Your task to perform on an android device: Open battery settings Image 0: 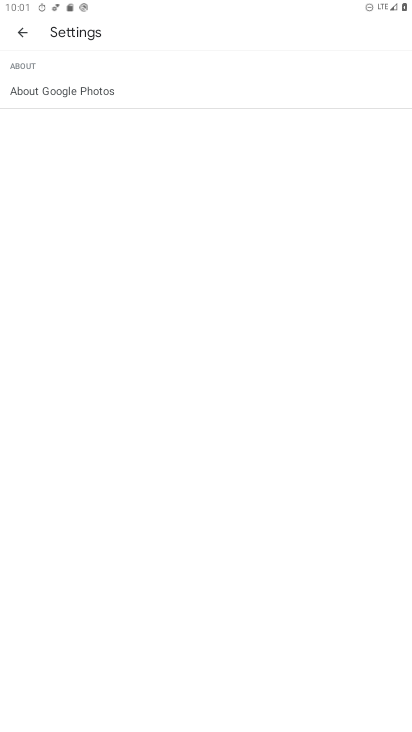
Step 0: press home button
Your task to perform on an android device: Open battery settings Image 1: 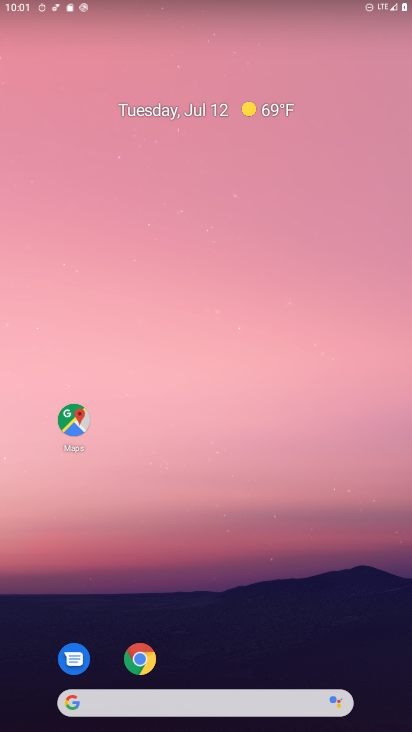
Step 1: drag from (240, 702) to (230, 178)
Your task to perform on an android device: Open battery settings Image 2: 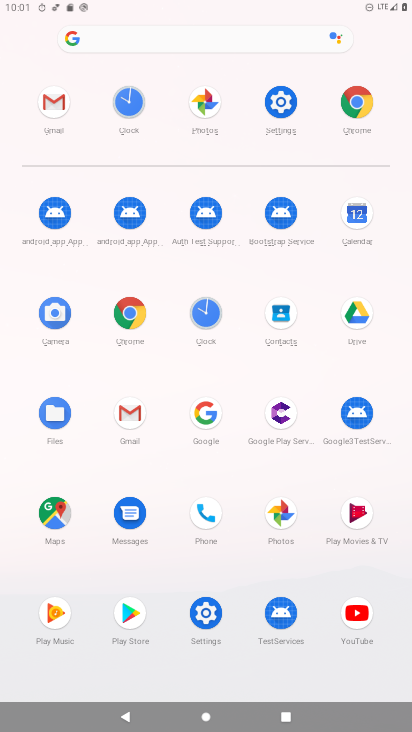
Step 2: click (277, 105)
Your task to perform on an android device: Open battery settings Image 3: 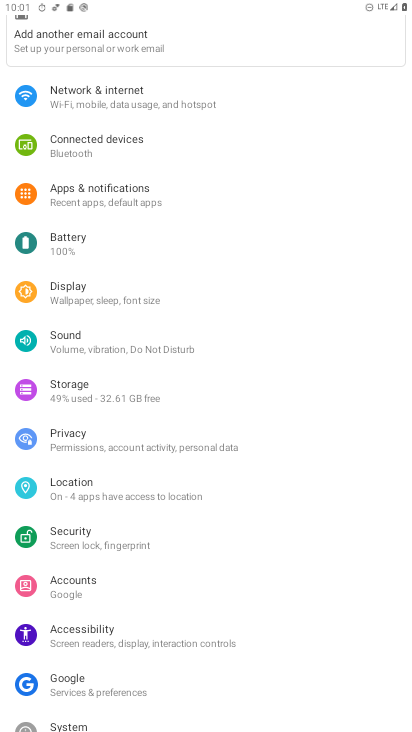
Step 3: click (63, 244)
Your task to perform on an android device: Open battery settings Image 4: 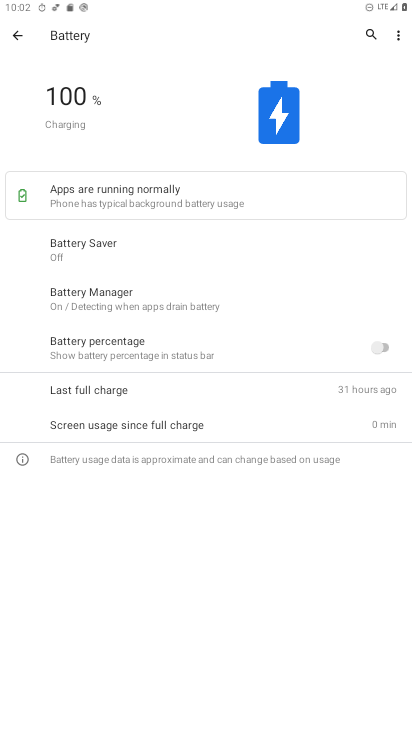
Step 4: task complete